Your task to perform on an android device: Is it going to rain this weekend? Image 0: 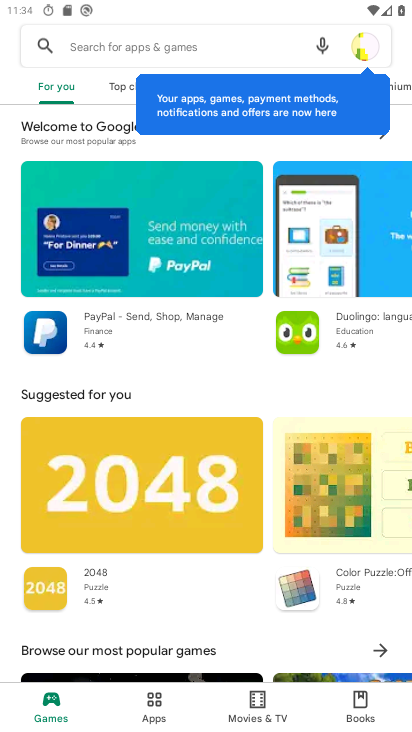
Step 0: press home button
Your task to perform on an android device: Is it going to rain this weekend? Image 1: 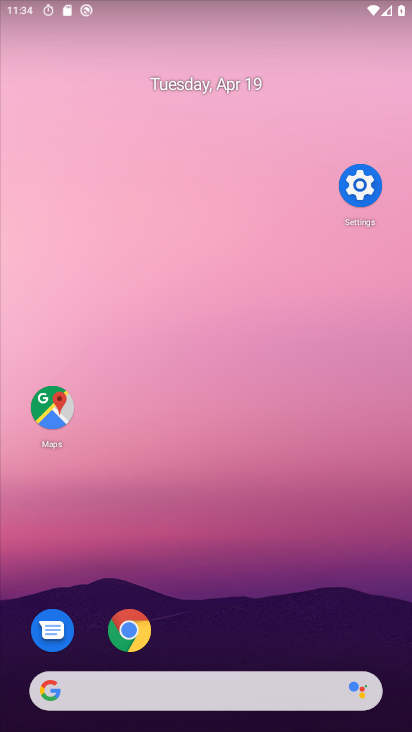
Step 1: drag from (256, 637) to (325, 172)
Your task to perform on an android device: Is it going to rain this weekend? Image 2: 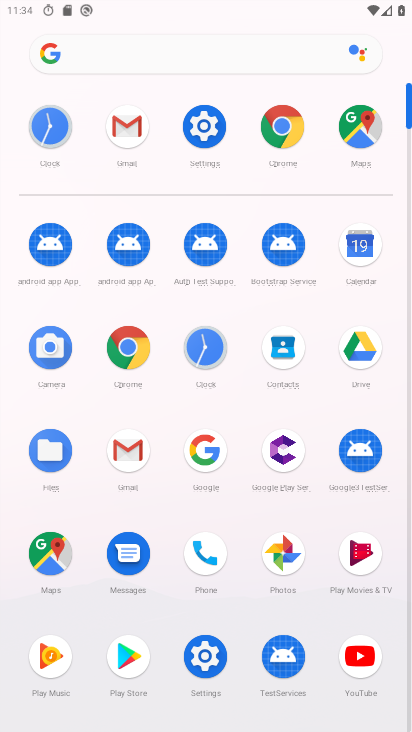
Step 2: click (213, 463)
Your task to perform on an android device: Is it going to rain this weekend? Image 3: 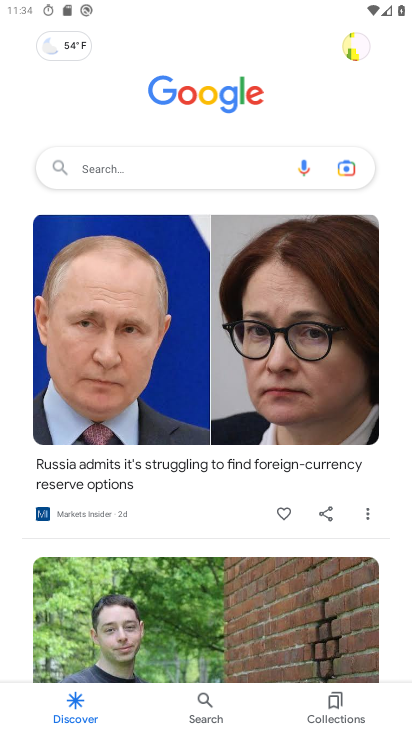
Step 3: click (207, 151)
Your task to perform on an android device: Is it going to rain this weekend? Image 4: 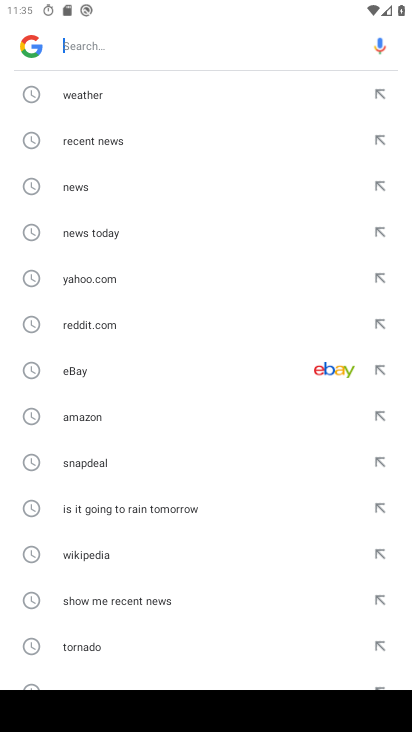
Step 4: type "saturday weather"
Your task to perform on an android device: Is it going to rain this weekend? Image 5: 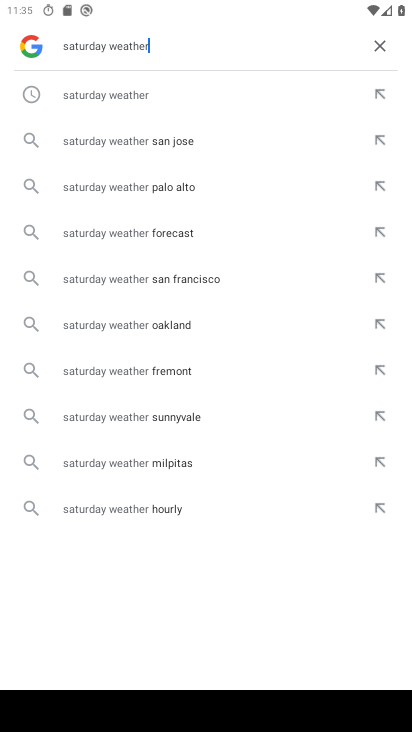
Step 5: click (268, 108)
Your task to perform on an android device: Is it going to rain this weekend? Image 6: 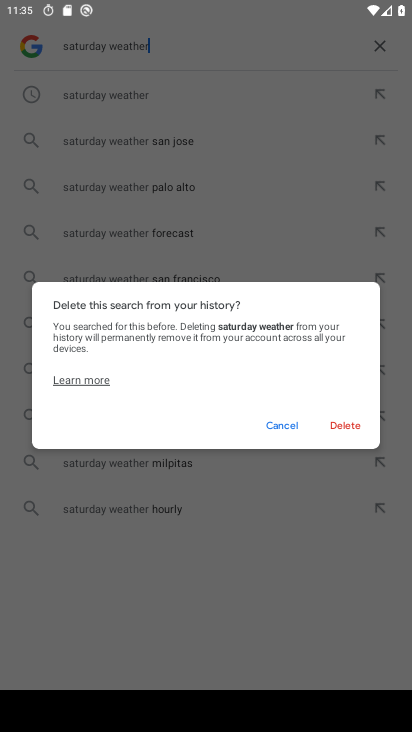
Step 6: click (263, 418)
Your task to perform on an android device: Is it going to rain this weekend? Image 7: 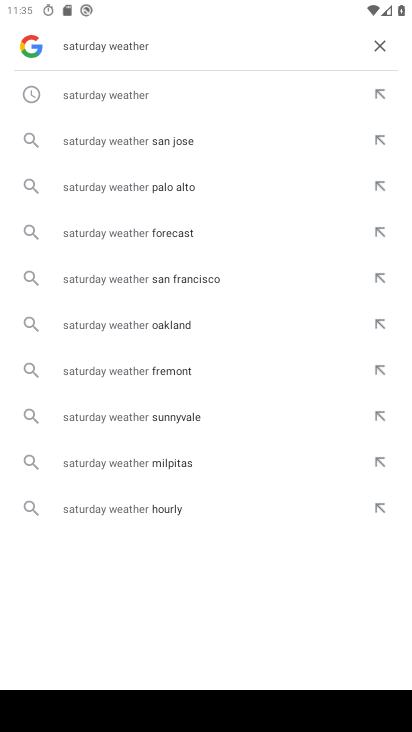
Step 7: click (294, 25)
Your task to perform on an android device: Is it going to rain this weekend? Image 8: 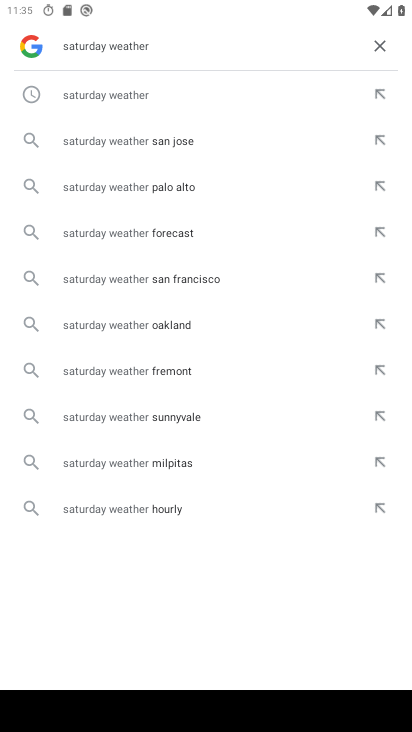
Step 8: click (376, 91)
Your task to perform on an android device: Is it going to rain this weekend? Image 9: 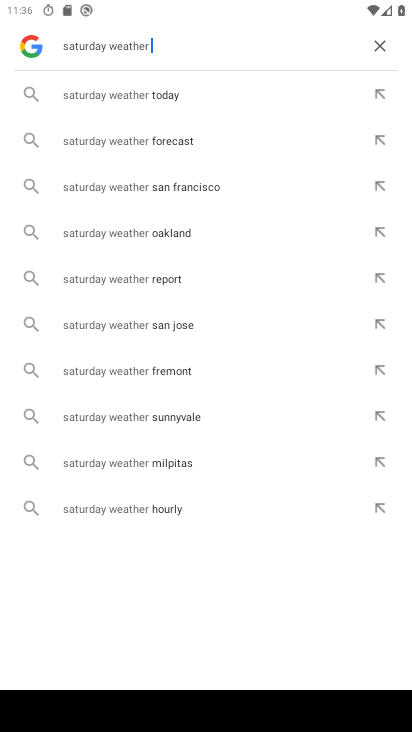
Step 9: task complete